Your task to perform on an android device: allow cookies in the chrome app Image 0: 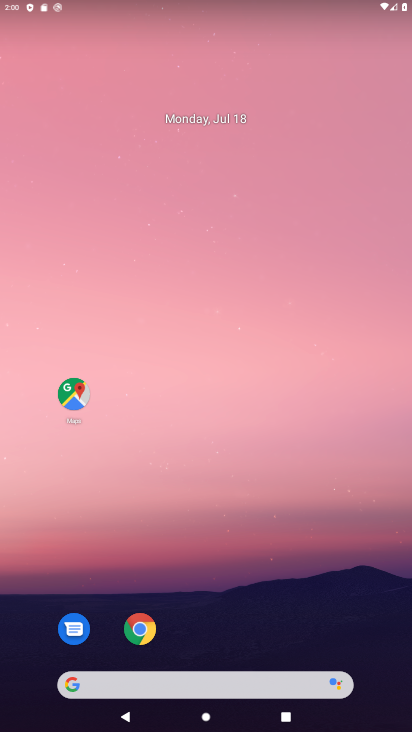
Step 0: click (142, 636)
Your task to perform on an android device: allow cookies in the chrome app Image 1: 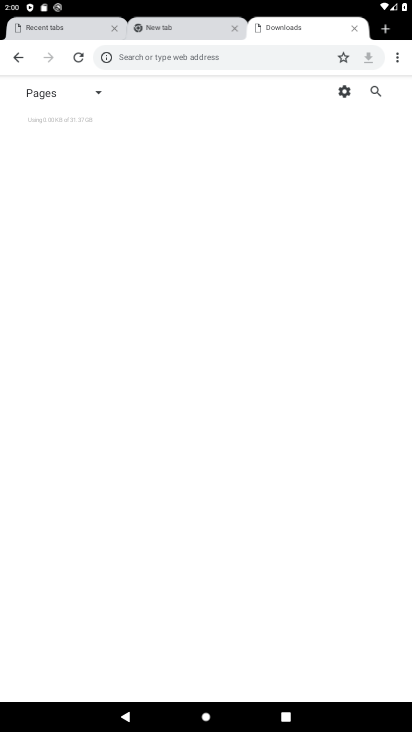
Step 1: click (398, 62)
Your task to perform on an android device: allow cookies in the chrome app Image 2: 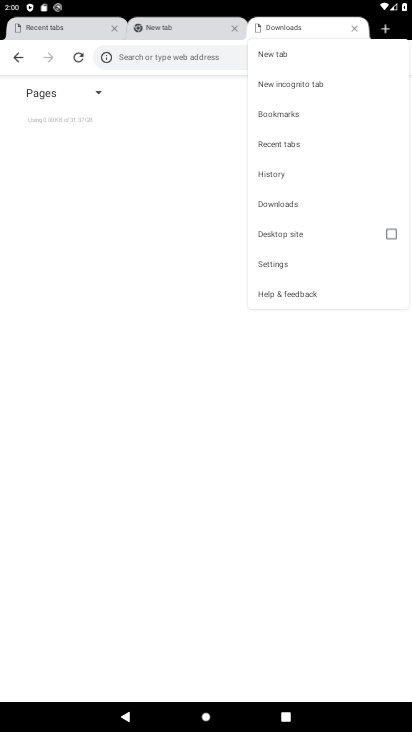
Step 2: click (286, 264)
Your task to perform on an android device: allow cookies in the chrome app Image 3: 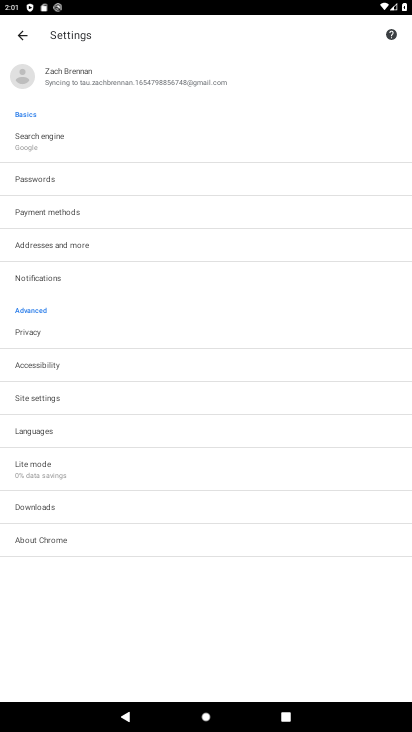
Step 3: click (82, 399)
Your task to perform on an android device: allow cookies in the chrome app Image 4: 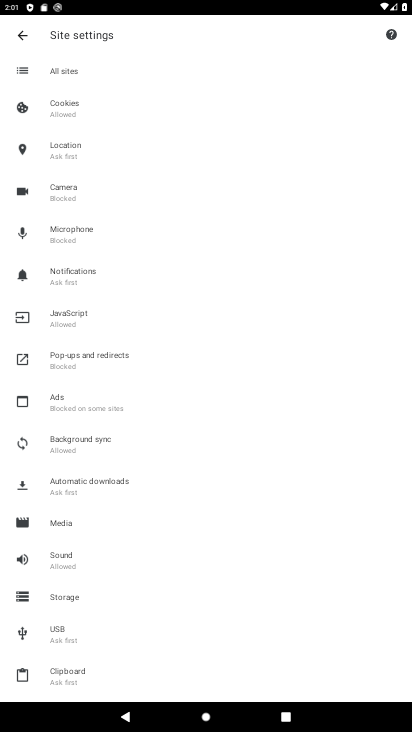
Step 4: click (83, 106)
Your task to perform on an android device: allow cookies in the chrome app Image 5: 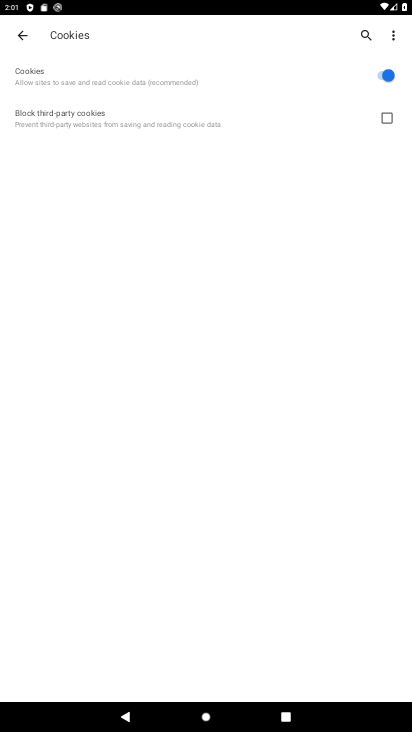
Step 5: task complete